Your task to perform on an android device: Go to Android settings Image 0: 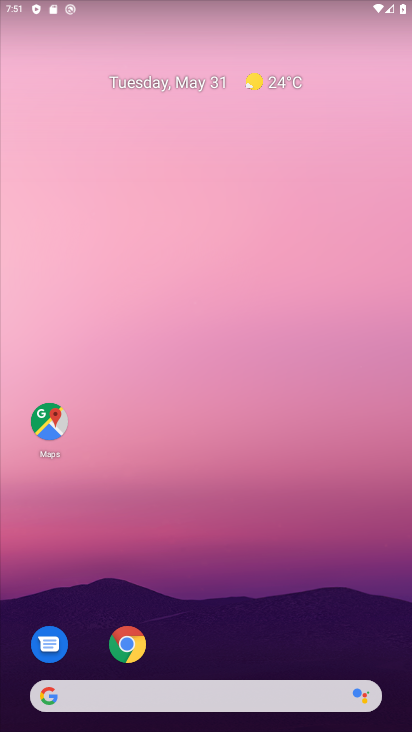
Step 0: drag from (234, 454) to (284, 259)
Your task to perform on an android device: Go to Android settings Image 1: 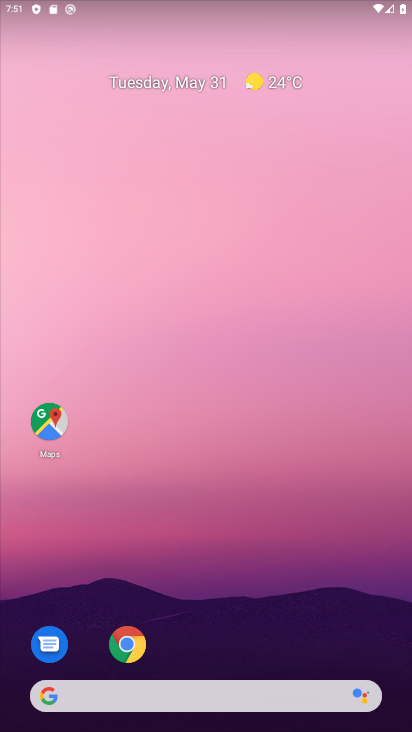
Step 1: drag from (208, 600) to (279, 150)
Your task to perform on an android device: Go to Android settings Image 2: 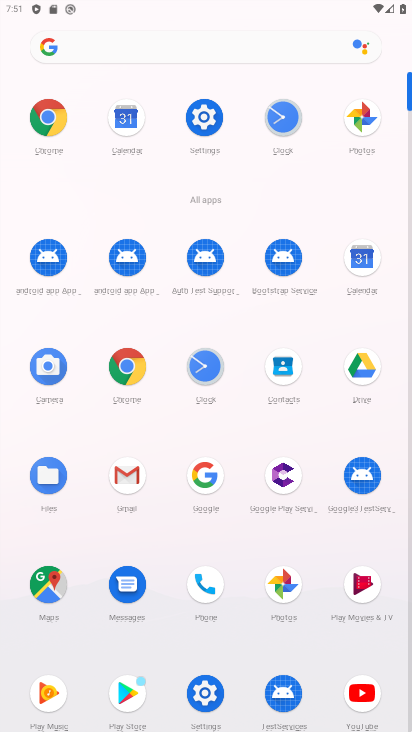
Step 2: click (213, 118)
Your task to perform on an android device: Go to Android settings Image 3: 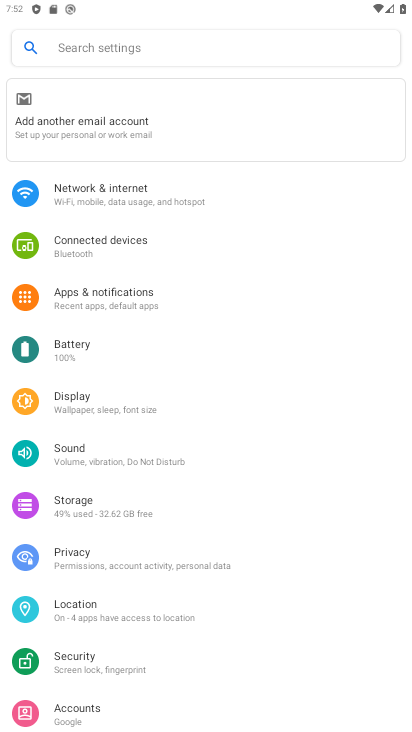
Step 3: drag from (112, 697) to (215, 118)
Your task to perform on an android device: Go to Android settings Image 4: 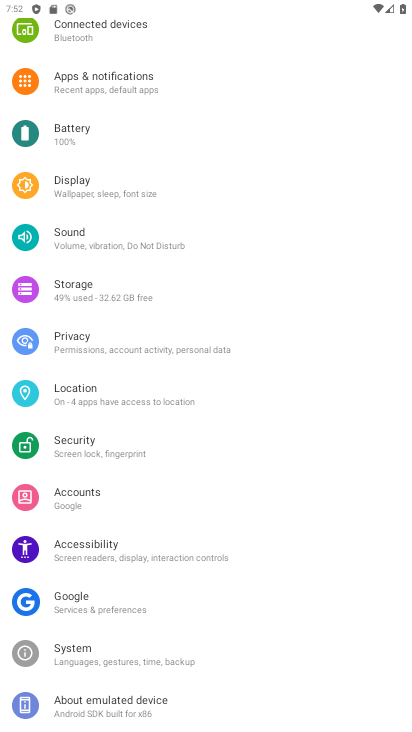
Step 4: click (144, 704)
Your task to perform on an android device: Go to Android settings Image 5: 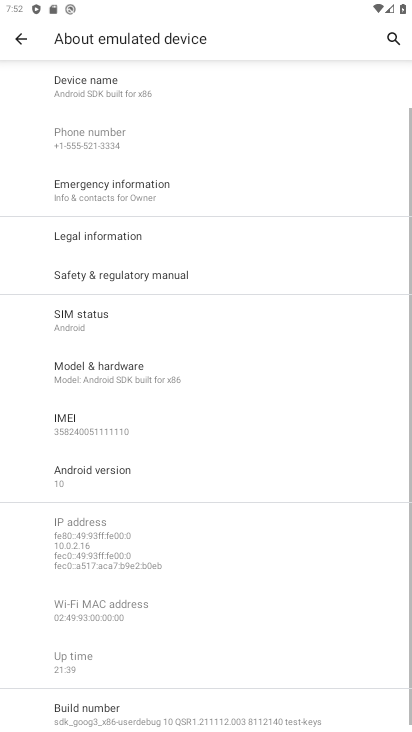
Step 5: task complete